Your task to perform on an android device: Show me recent news Image 0: 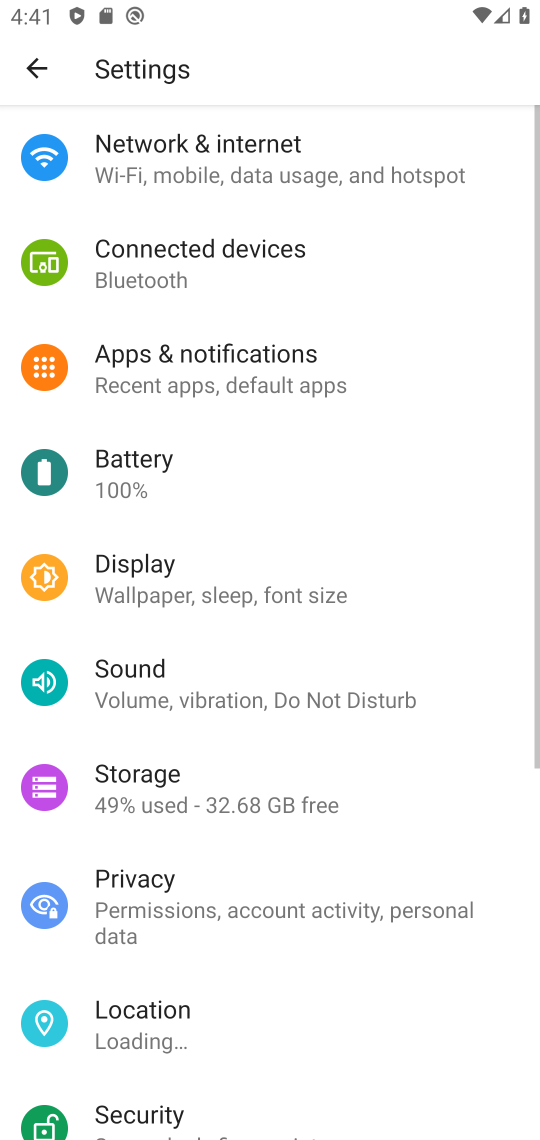
Step 0: press home button
Your task to perform on an android device: Show me recent news Image 1: 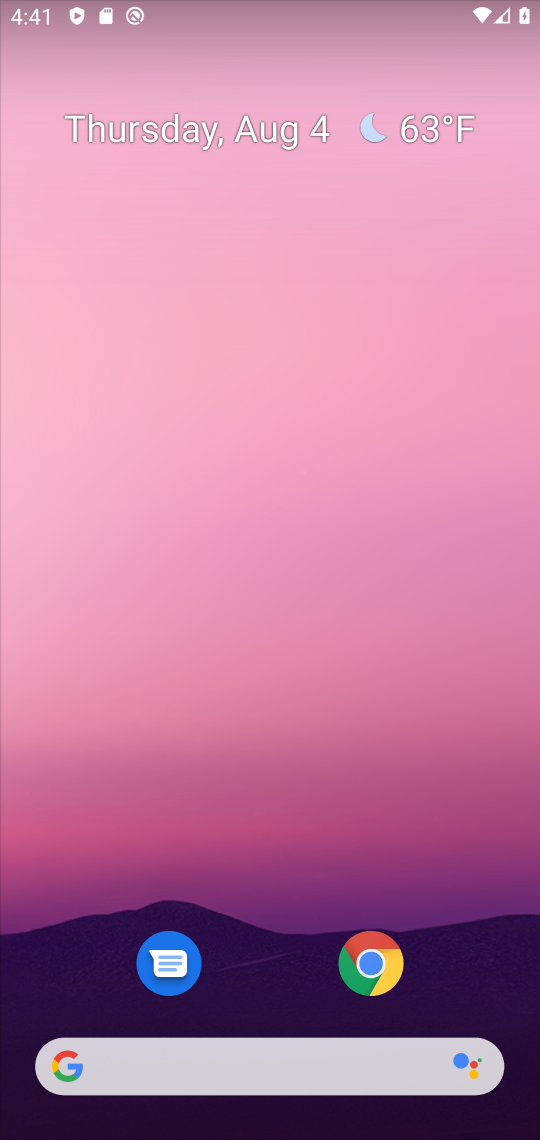
Step 1: task complete